Your task to perform on an android device: Go to CNN.com Image 0: 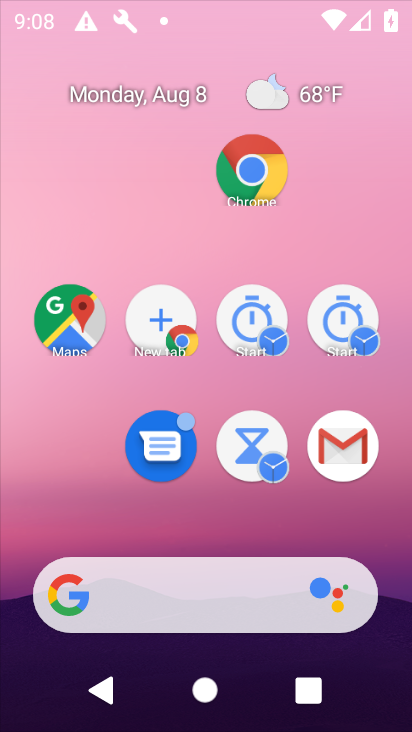
Step 0: drag from (172, 241) to (198, 158)
Your task to perform on an android device: Go to CNN.com Image 1: 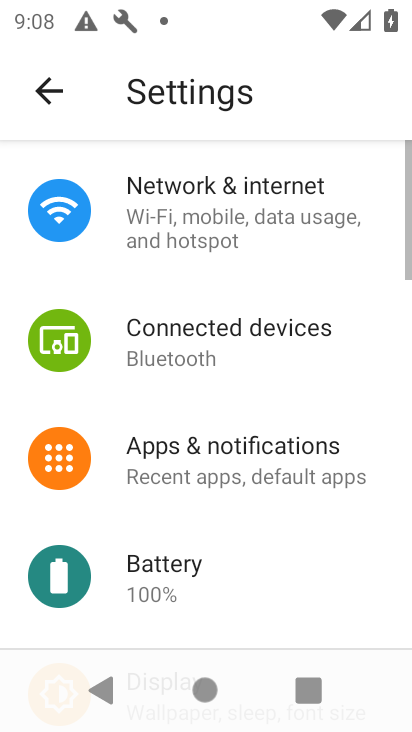
Step 1: click (50, 95)
Your task to perform on an android device: Go to CNN.com Image 2: 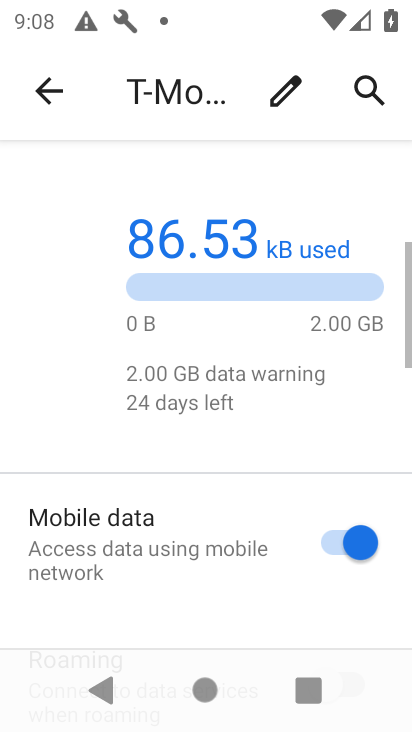
Step 2: press back button
Your task to perform on an android device: Go to CNN.com Image 3: 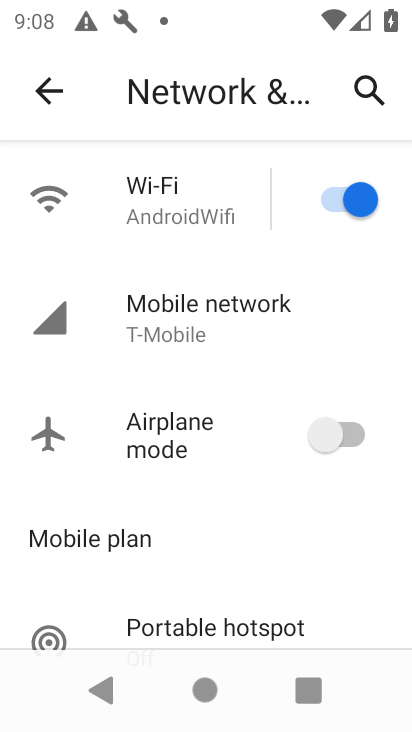
Step 3: click (35, 91)
Your task to perform on an android device: Go to CNN.com Image 4: 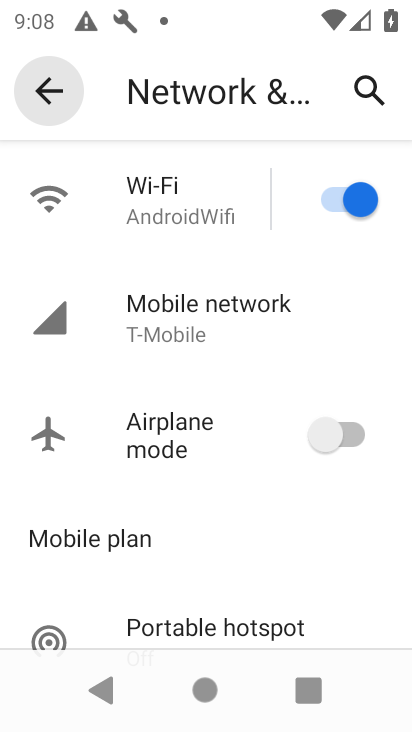
Step 4: click (35, 91)
Your task to perform on an android device: Go to CNN.com Image 5: 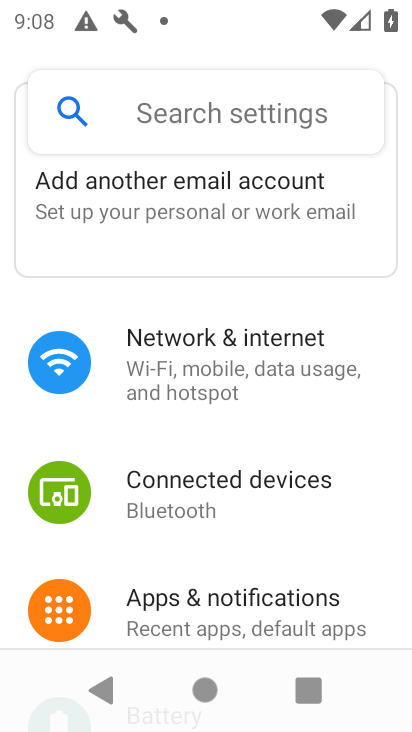
Step 5: press back button
Your task to perform on an android device: Go to CNN.com Image 6: 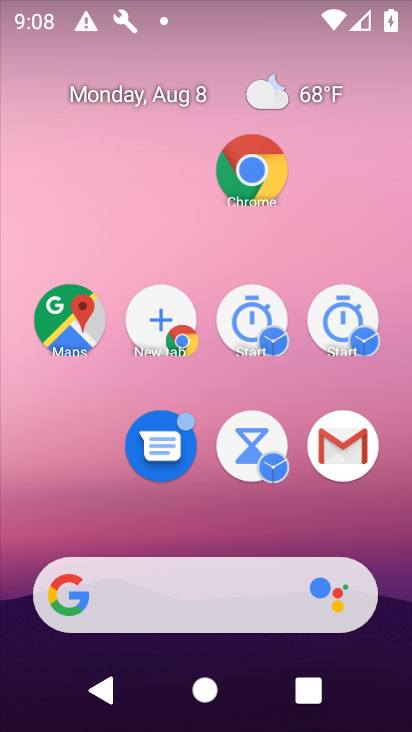
Step 6: drag from (199, 386) to (162, 214)
Your task to perform on an android device: Go to CNN.com Image 7: 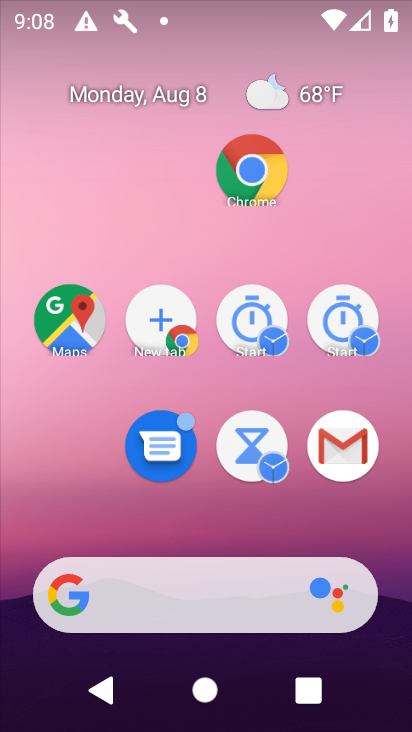
Step 7: drag from (254, 564) to (185, 152)
Your task to perform on an android device: Go to CNN.com Image 8: 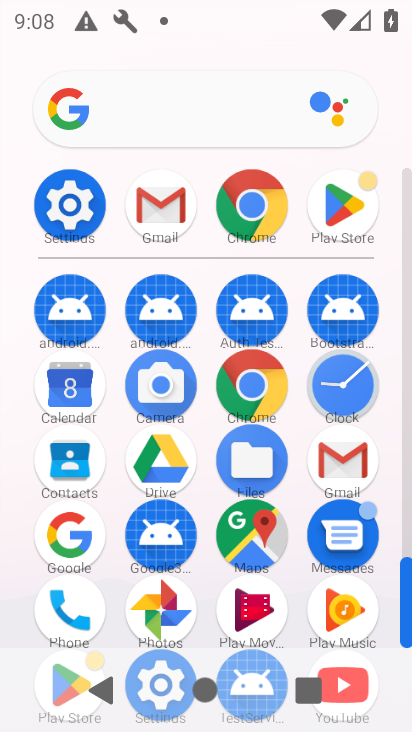
Step 8: drag from (299, 574) to (252, 241)
Your task to perform on an android device: Go to CNN.com Image 9: 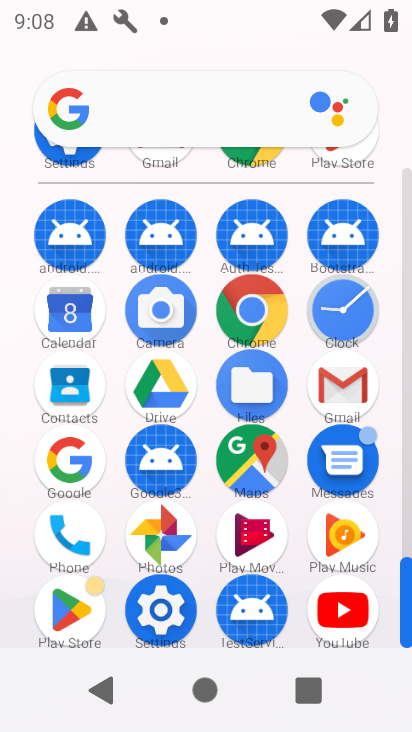
Step 9: click (251, 207)
Your task to perform on an android device: Go to CNN.com Image 10: 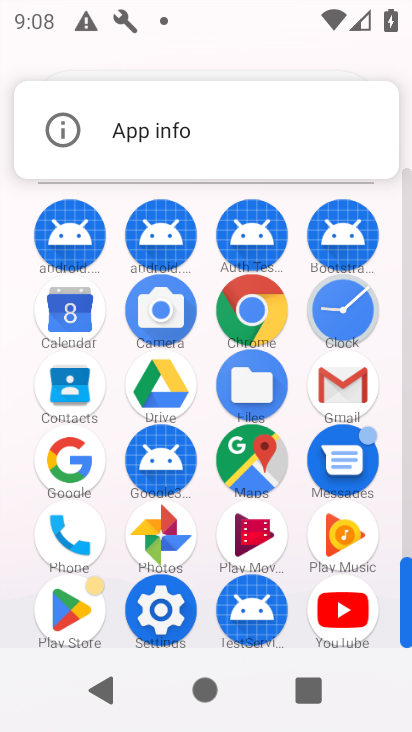
Step 10: click (248, 327)
Your task to perform on an android device: Go to CNN.com Image 11: 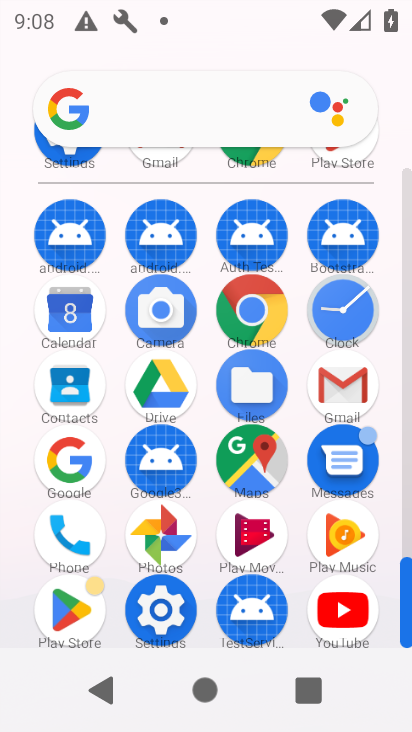
Step 11: click (251, 305)
Your task to perform on an android device: Go to CNN.com Image 12: 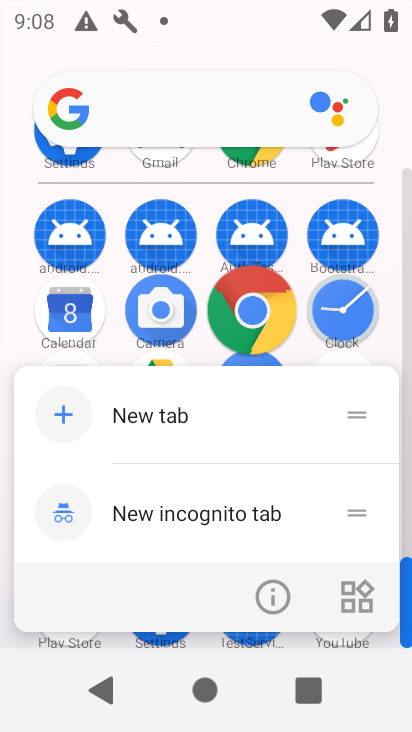
Step 12: click (253, 297)
Your task to perform on an android device: Go to CNN.com Image 13: 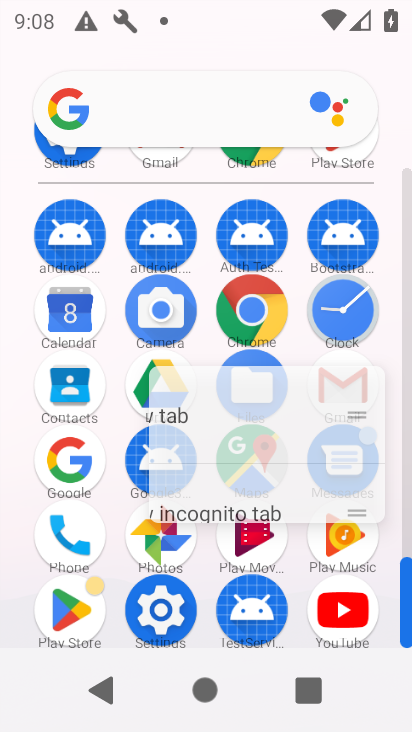
Step 13: click (253, 297)
Your task to perform on an android device: Go to CNN.com Image 14: 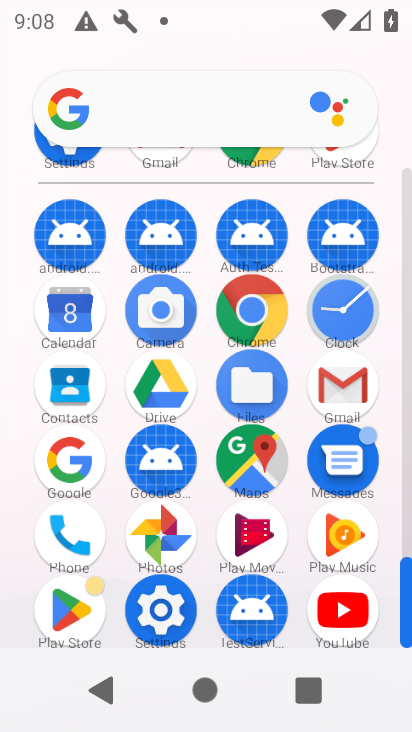
Step 14: click (256, 305)
Your task to perform on an android device: Go to CNN.com Image 15: 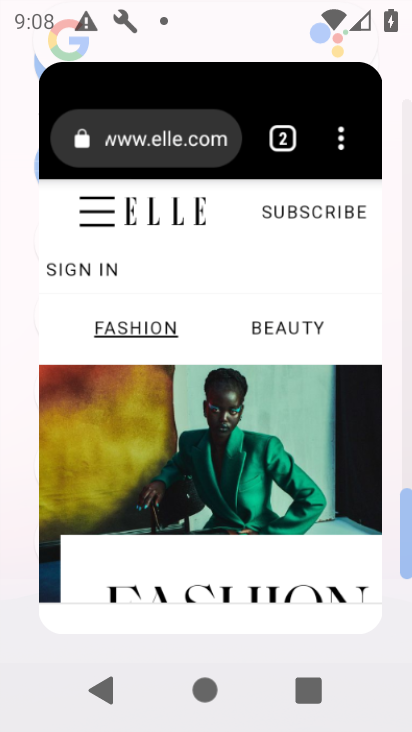
Step 15: click (256, 305)
Your task to perform on an android device: Go to CNN.com Image 16: 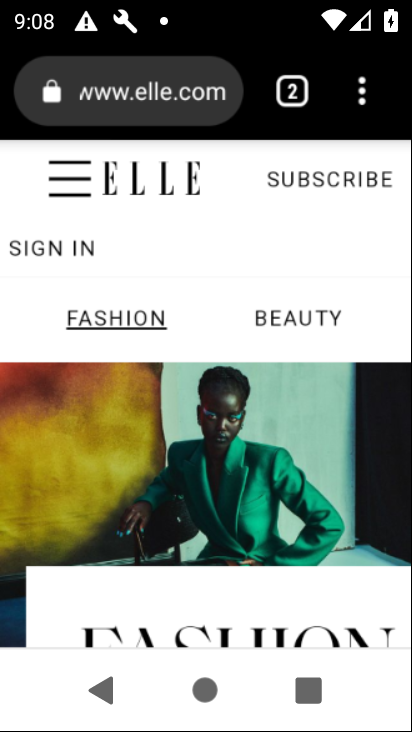
Step 16: click (257, 306)
Your task to perform on an android device: Go to CNN.com Image 17: 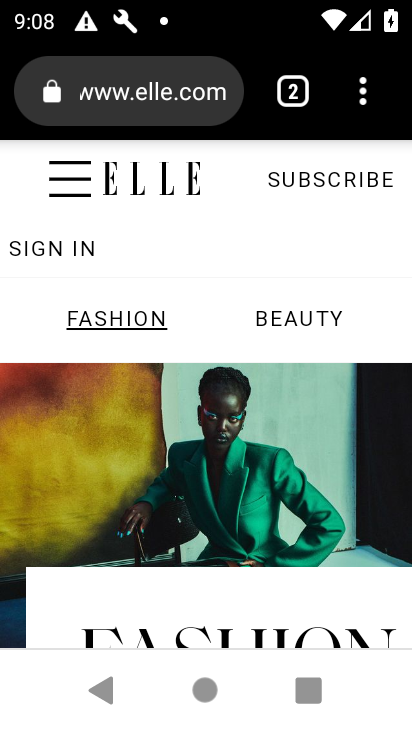
Step 17: click (354, 103)
Your task to perform on an android device: Go to CNN.com Image 18: 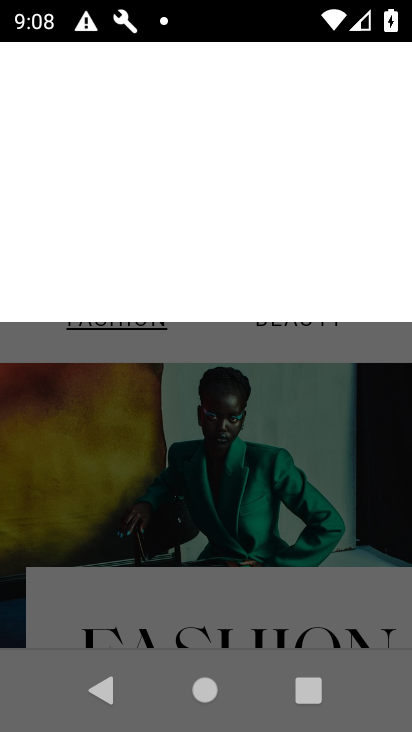
Step 18: drag from (354, 103) to (190, 184)
Your task to perform on an android device: Go to CNN.com Image 19: 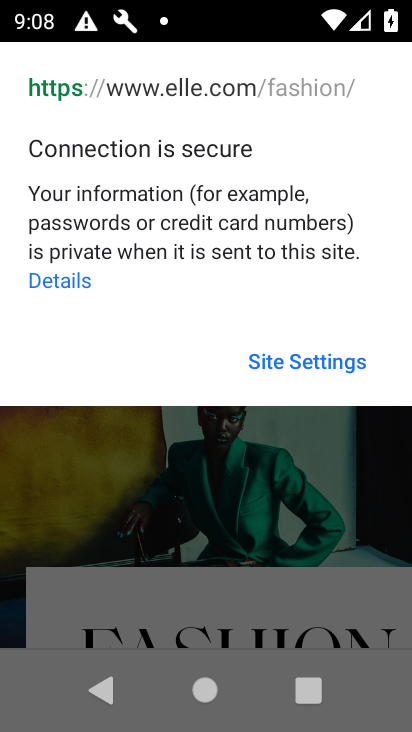
Step 19: click (173, 424)
Your task to perform on an android device: Go to CNN.com Image 20: 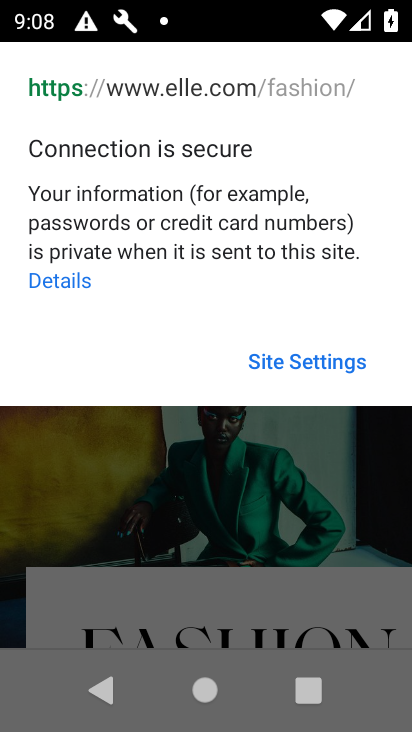
Step 20: click (170, 426)
Your task to perform on an android device: Go to CNN.com Image 21: 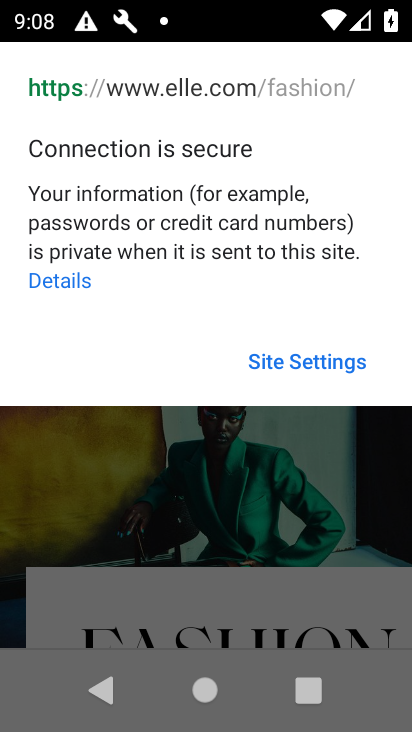
Step 21: click (170, 426)
Your task to perform on an android device: Go to CNN.com Image 22: 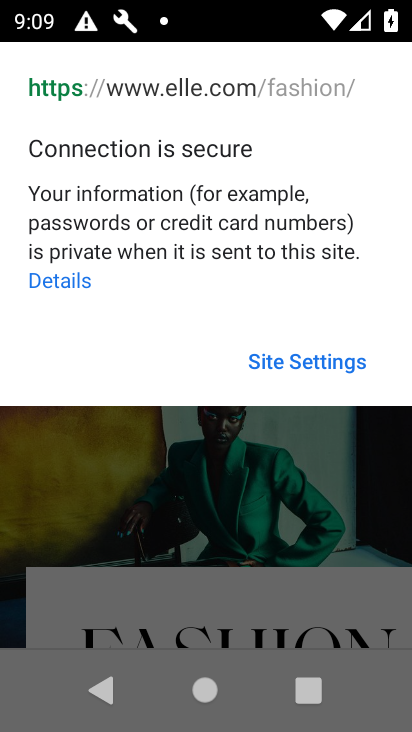
Step 22: press back button
Your task to perform on an android device: Go to CNN.com Image 23: 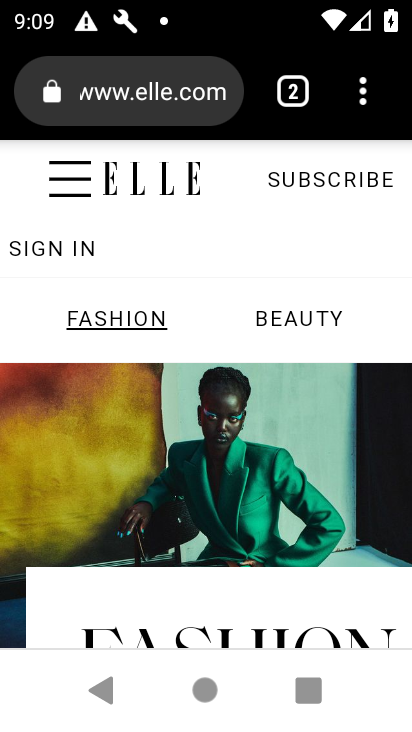
Step 23: click (171, 391)
Your task to perform on an android device: Go to CNN.com Image 24: 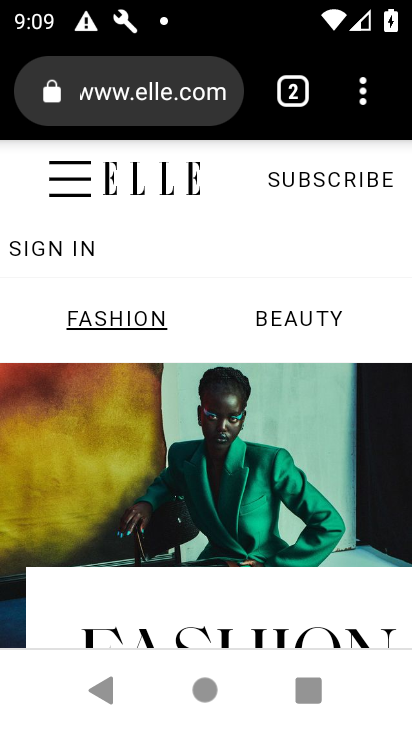
Step 24: drag from (360, 92) to (93, 176)
Your task to perform on an android device: Go to CNN.com Image 25: 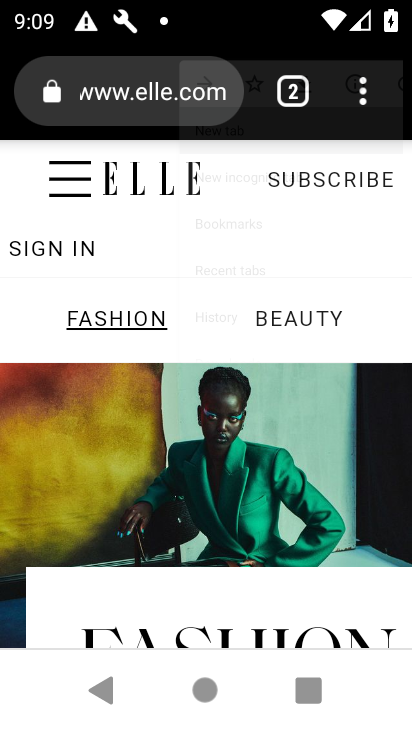
Step 25: click (97, 176)
Your task to perform on an android device: Go to CNN.com Image 26: 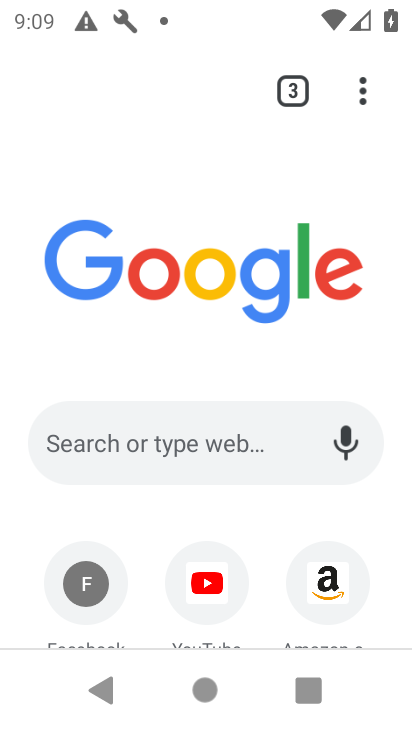
Step 26: click (61, 445)
Your task to perform on an android device: Go to CNN.com Image 27: 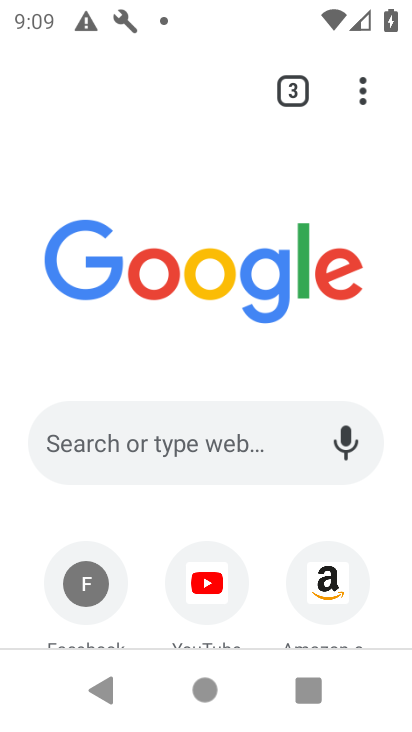
Step 27: click (61, 445)
Your task to perform on an android device: Go to CNN.com Image 28: 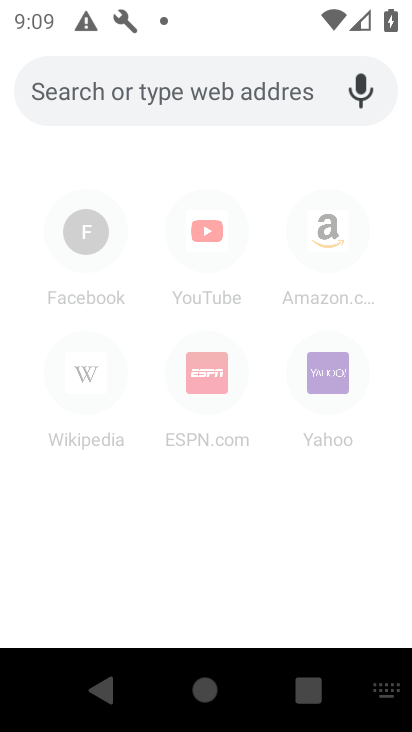
Step 28: click (61, 445)
Your task to perform on an android device: Go to CNN.com Image 29: 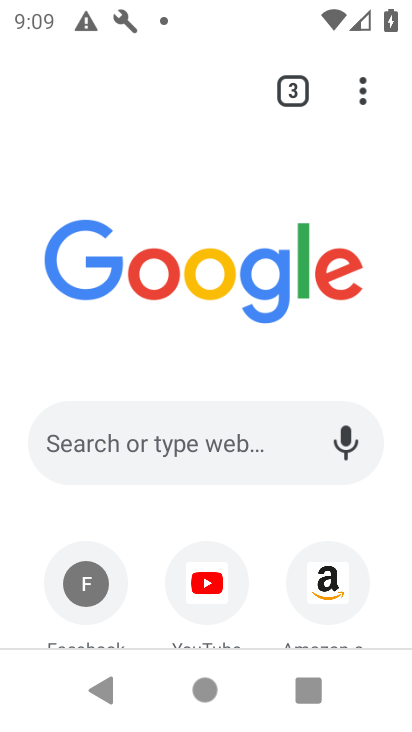
Step 29: click (89, 443)
Your task to perform on an android device: Go to CNN.com Image 30: 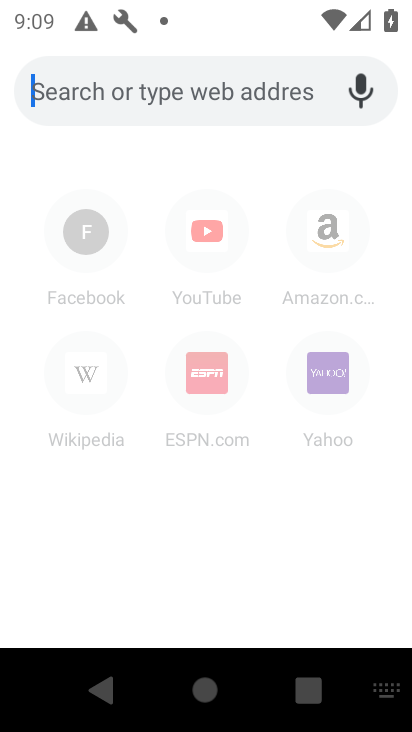
Step 30: type "CNN.com"
Your task to perform on an android device: Go to CNN.com Image 31: 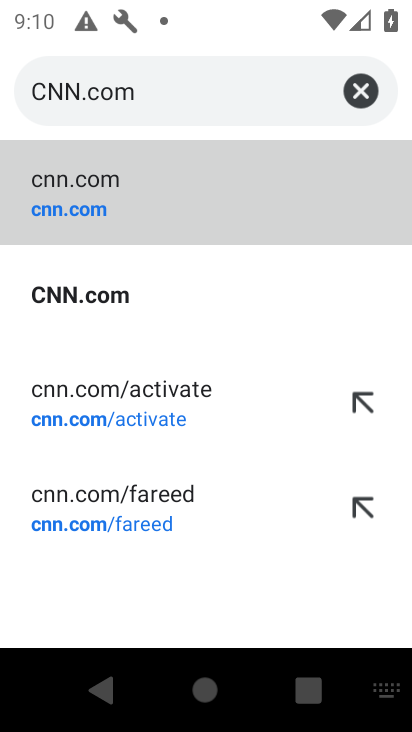
Step 31: click (162, 199)
Your task to perform on an android device: Go to CNN.com Image 32: 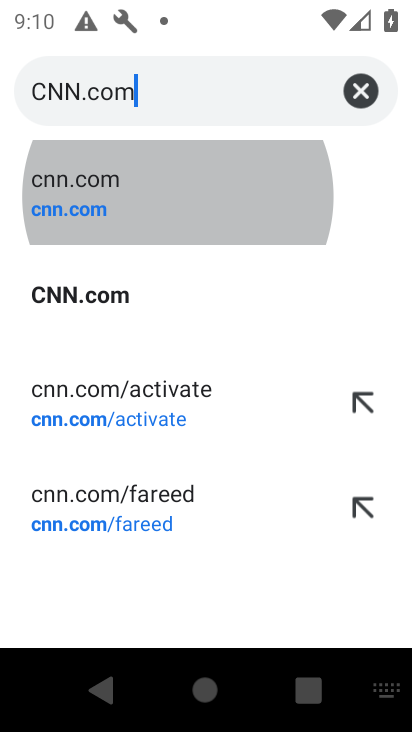
Step 32: click (162, 199)
Your task to perform on an android device: Go to CNN.com Image 33: 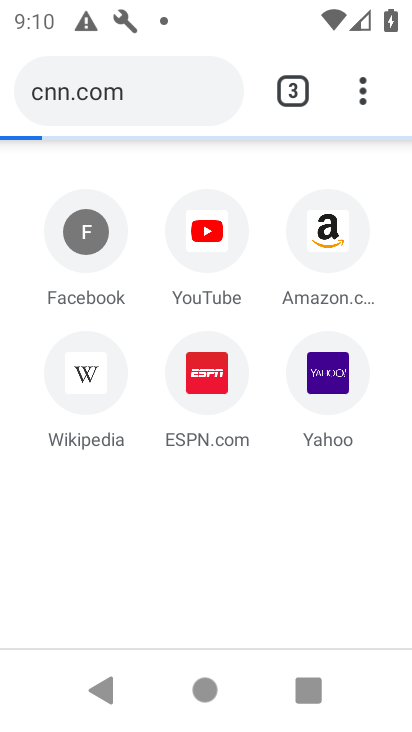
Step 33: click (161, 199)
Your task to perform on an android device: Go to CNN.com Image 34: 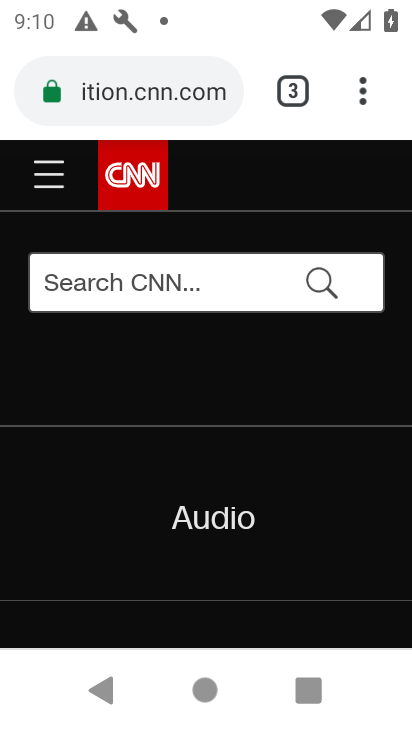
Step 34: task complete